Your task to perform on an android device: change the clock display to show seconds Image 0: 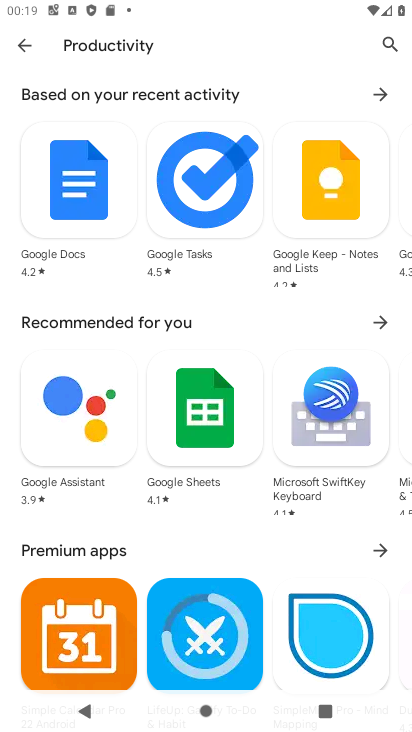
Step 0: press home button
Your task to perform on an android device: change the clock display to show seconds Image 1: 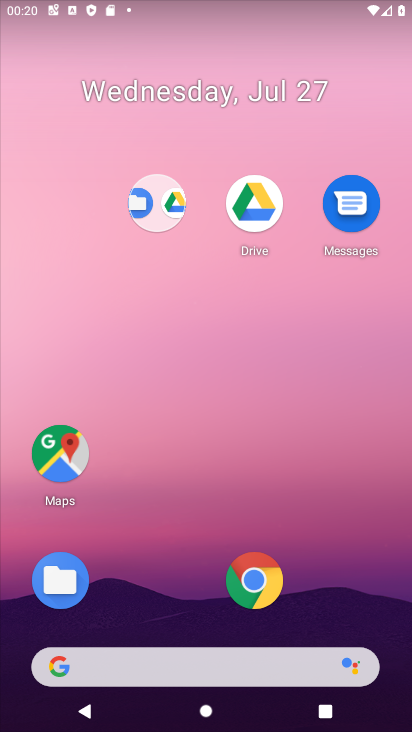
Step 1: drag from (136, 424) to (171, 190)
Your task to perform on an android device: change the clock display to show seconds Image 2: 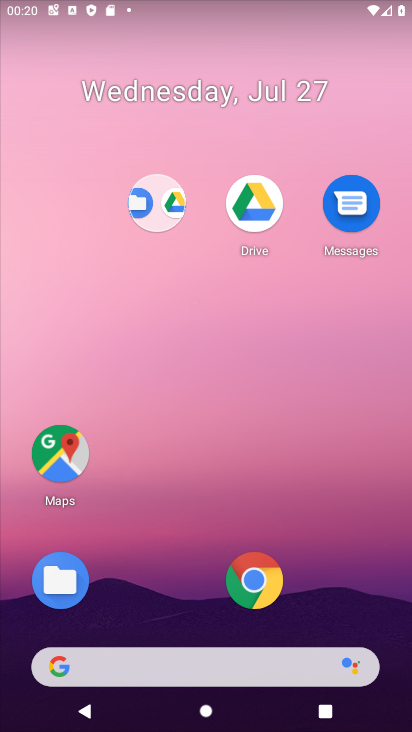
Step 2: drag from (168, 587) to (209, 183)
Your task to perform on an android device: change the clock display to show seconds Image 3: 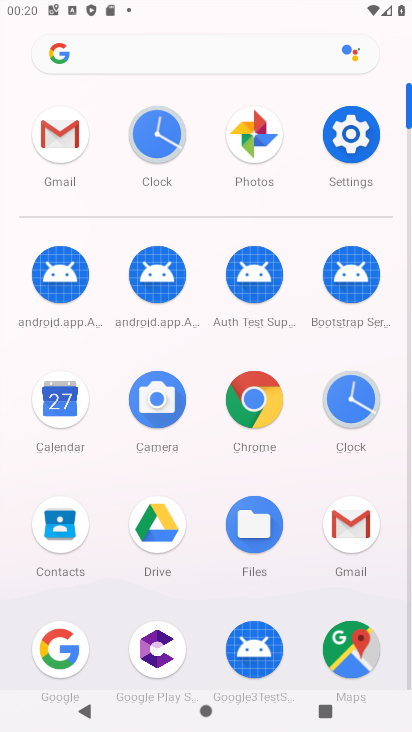
Step 3: click (149, 110)
Your task to perform on an android device: change the clock display to show seconds Image 4: 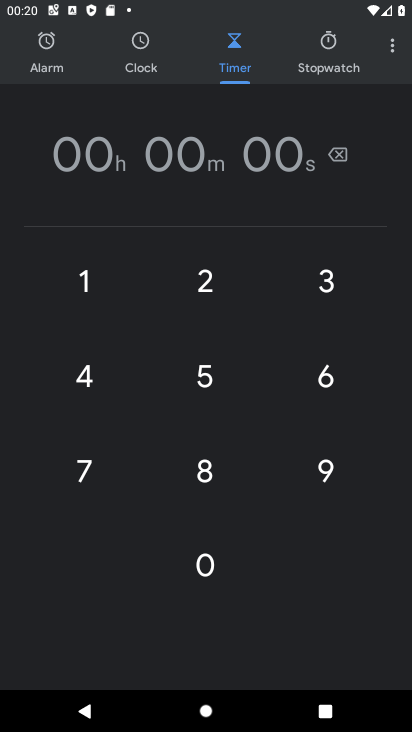
Step 4: click (402, 41)
Your task to perform on an android device: change the clock display to show seconds Image 5: 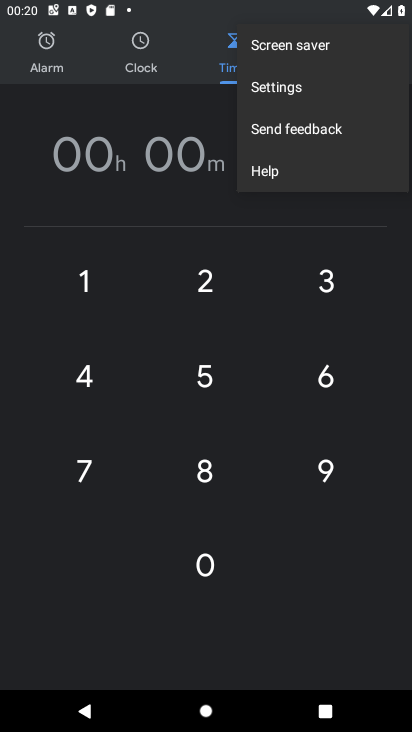
Step 5: click (305, 86)
Your task to perform on an android device: change the clock display to show seconds Image 6: 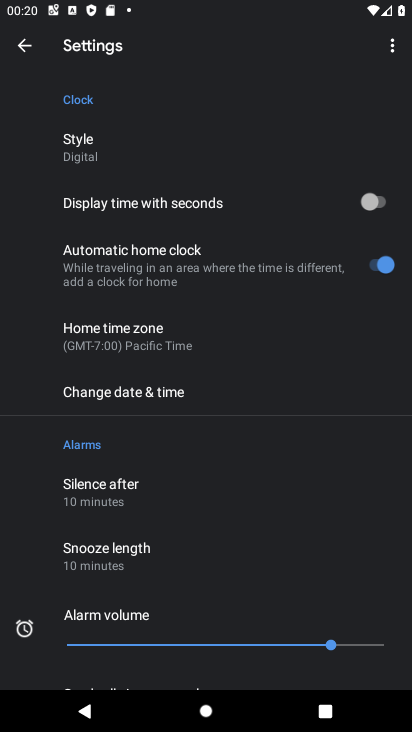
Step 6: click (387, 212)
Your task to perform on an android device: change the clock display to show seconds Image 7: 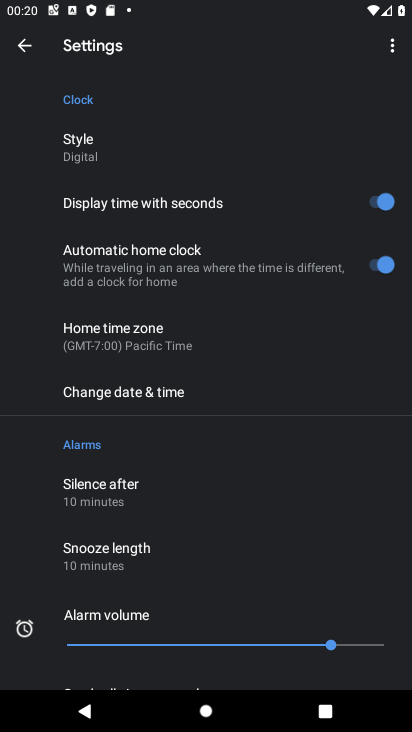
Step 7: task complete